Your task to perform on an android device: change the clock display to analog Image 0: 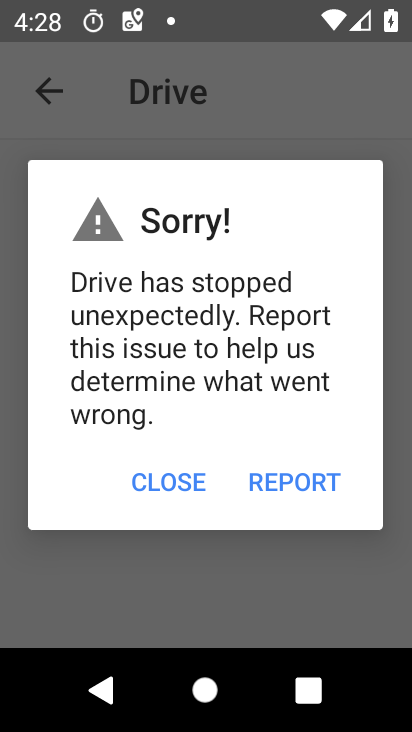
Step 0: press home button
Your task to perform on an android device: change the clock display to analog Image 1: 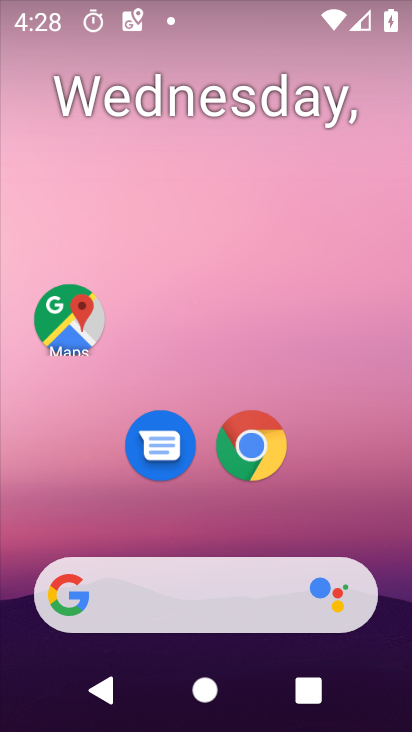
Step 1: drag from (230, 501) to (255, 105)
Your task to perform on an android device: change the clock display to analog Image 2: 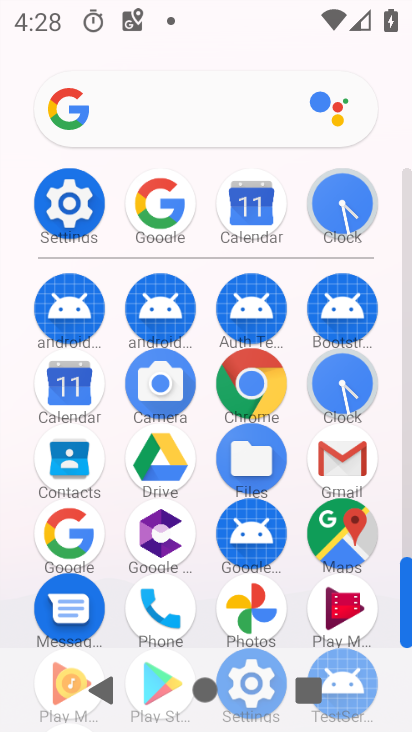
Step 2: click (349, 367)
Your task to perform on an android device: change the clock display to analog Image 3: 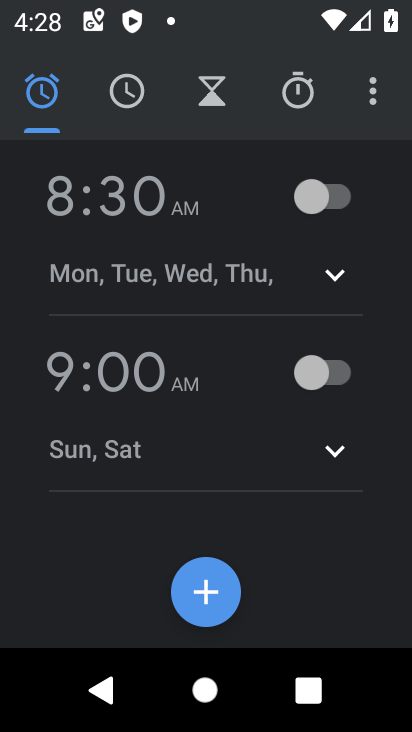
Step 3: click (369, 89)
Your task to perform on an android device: change the clock display to analog Image 4: 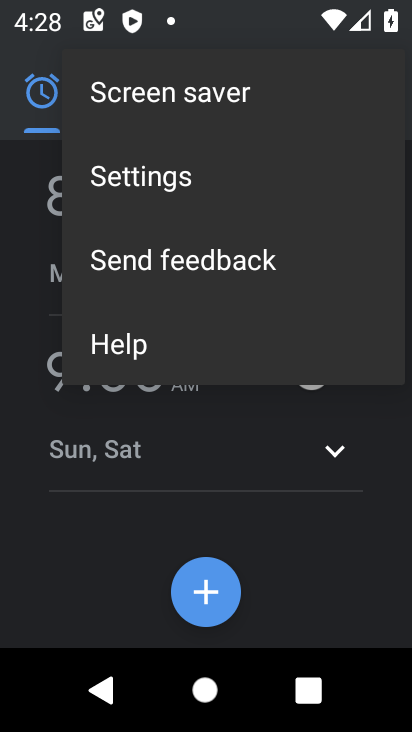
Step 4: click (206, 168)
Your task to perform on an android device: change the clock display to analog Image 5: 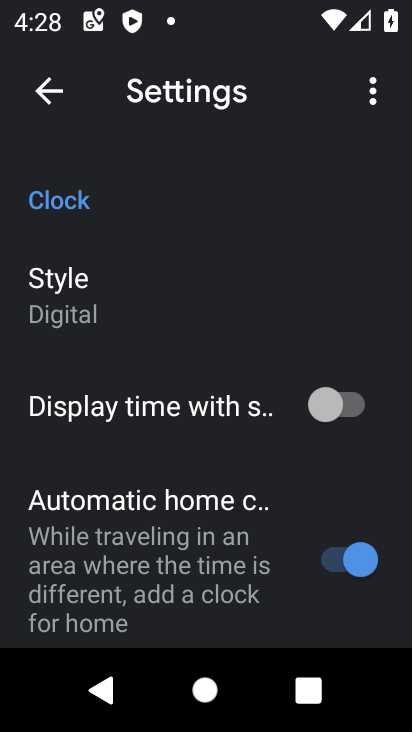
Step 5: click (132, 294)
Your task to perform on an android device: change the clock display to analog Image 6: 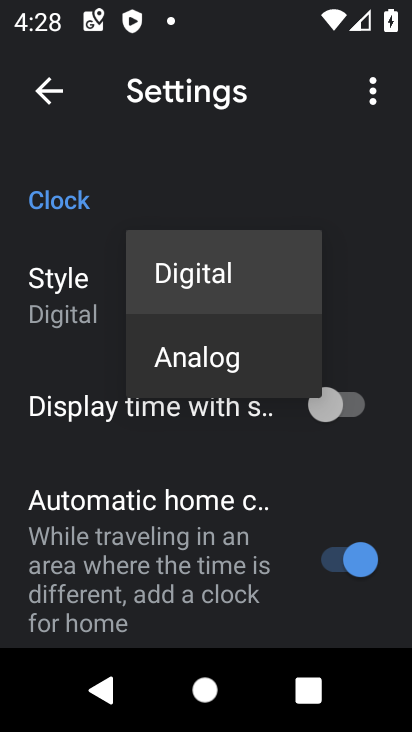
Step 6: click (207, 356)
Your task to perform on an android device: change the clock display to analog Image 7: 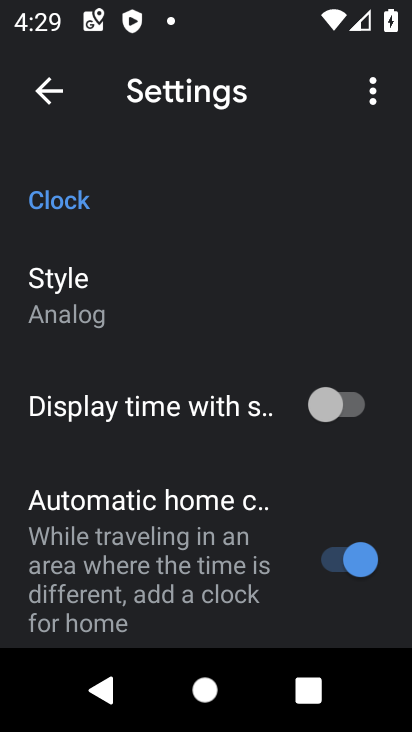
Step 7: task complete